Your task to perform on an android device: see creations saved in the google photos Image 0: 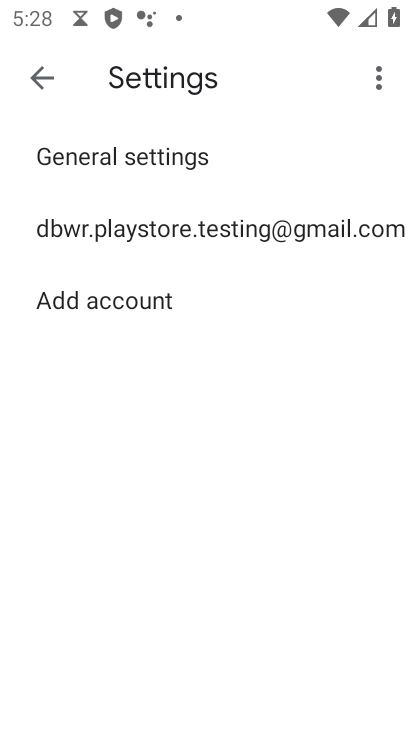
Step 0: click (40, 68)
Your task to perform on an android device: see creations saved in the google photos Image 1: 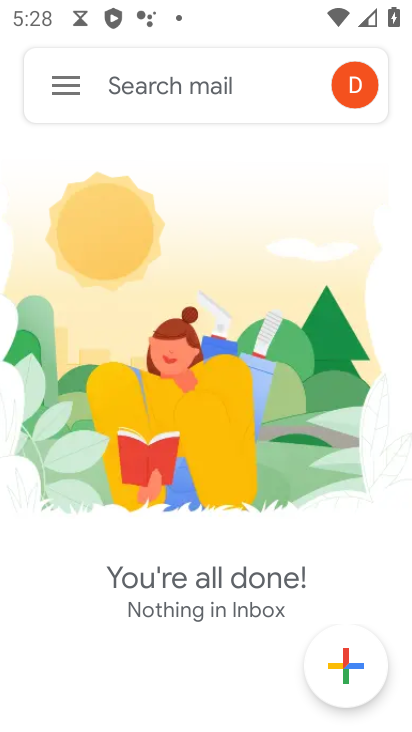
Step 1: press back button
Your task to perform on an android device: see creations saved in the google photos Image 2: 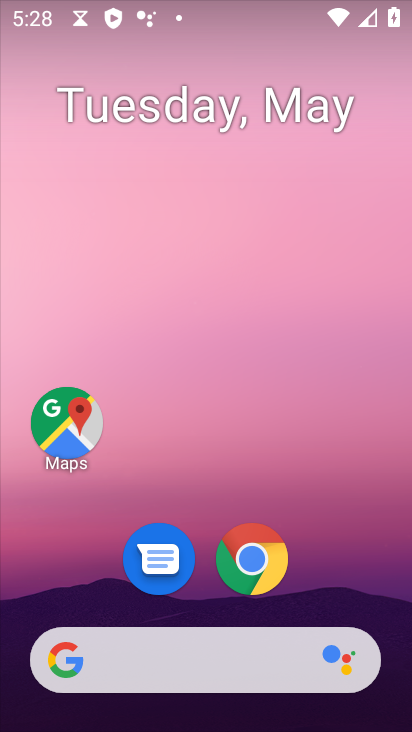
Step 2: drag from (367, 616) to (335, 17)
Your task to perform on an android device: see creations saved in the google photos Image 3: 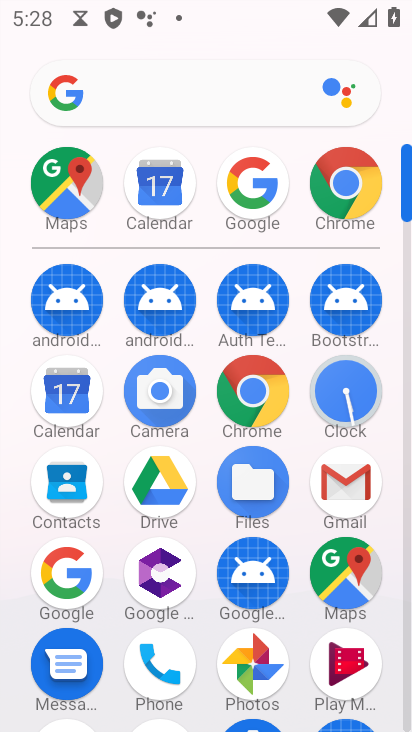
Step 3: click (252, 670)
Your task to perform on an android device: see creations saved in the google photos Image 4: 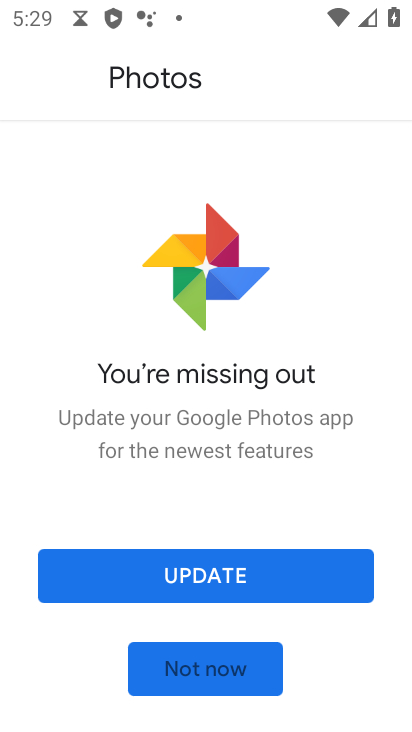
Step 4: click (205, 683)
Your task to perform on an android device: see creations saved in the google photos Image 5: 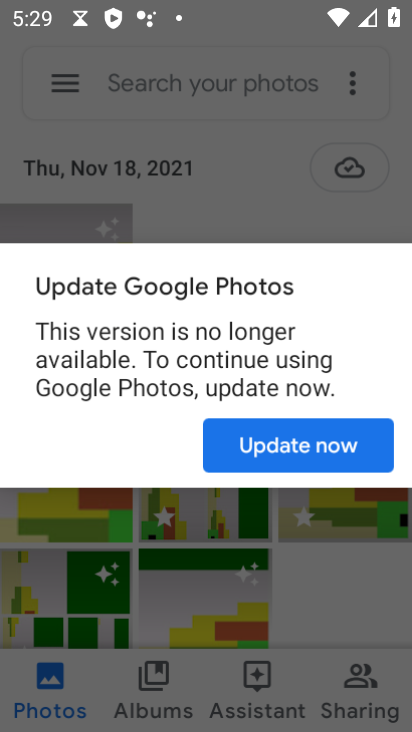
Step 5: click (205, 683)
Your task to perform on an android device: see creations saved in the google photos Image 6: 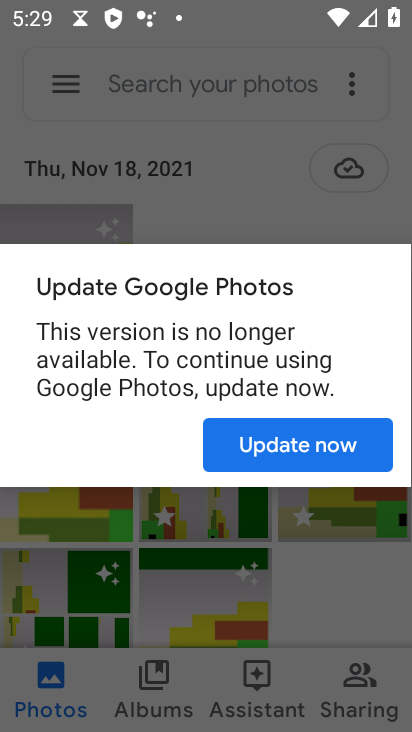
Step 6: click (308, 451)
Your task to perform on an android device: see creations saved in the google photos Image 7: 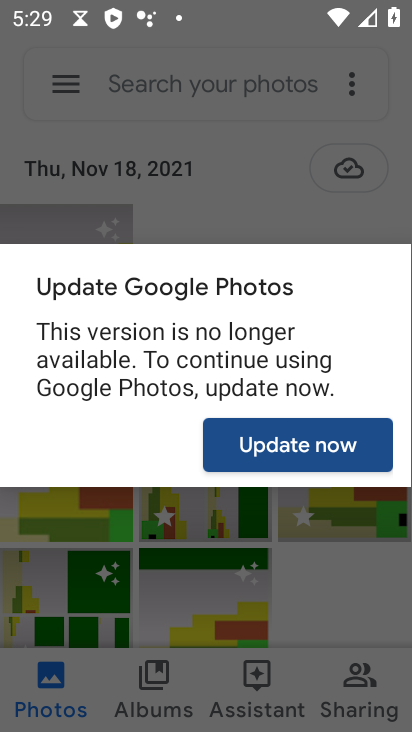
Step 7: click (308, 451)
Your task to perform on an android device: see creations saved in the google photos Image 8: 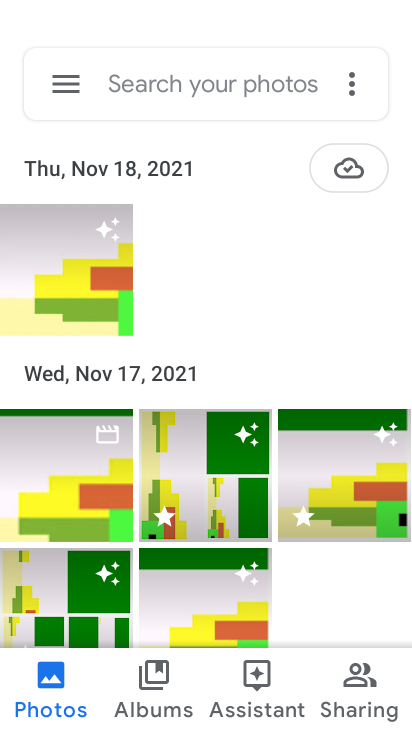
Step 8: click (308, 451)
Your task to perform on an android device: see creations saved in the google photos Image 9: 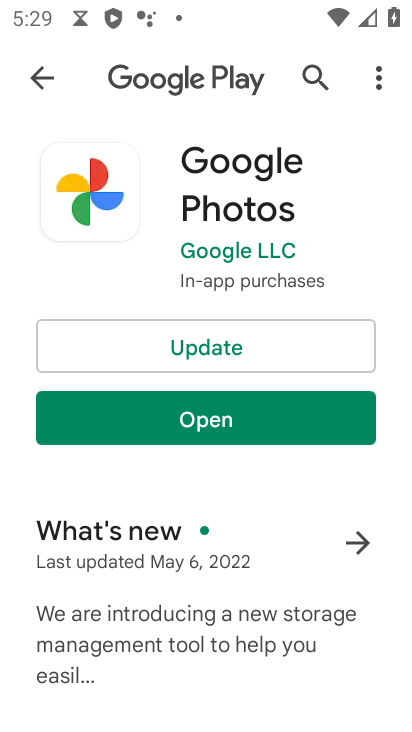
Step 9: press home button
Your task to perform on an android device: see creations saved in the google photos Image 10: 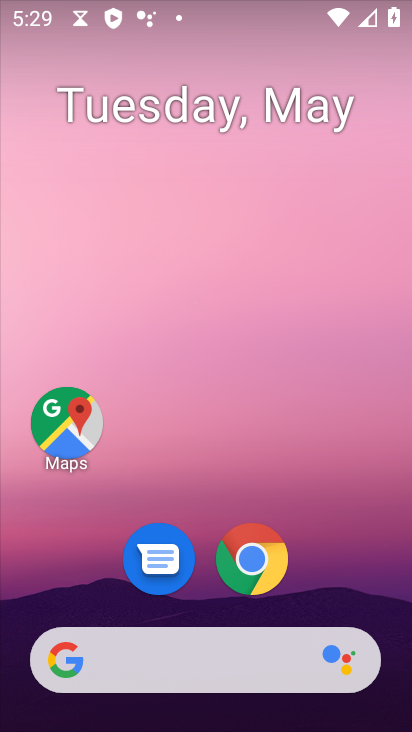
Step 10: drag from (282, 608) to (251, 18)
Your task to perform on an android device: see creations saved in the google photos Image 11: 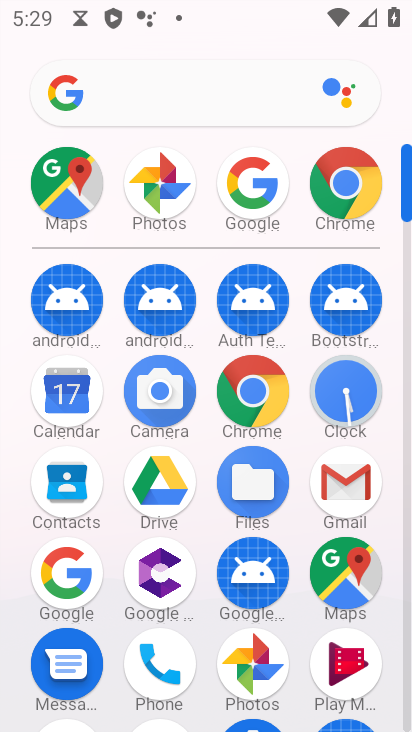
Step 11: click (250, 662)
Your task to perform on an android device: see creations saved in the google photos Image 12: 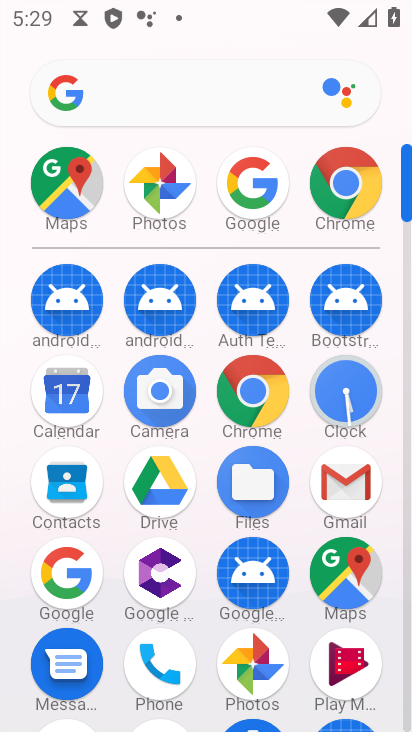
Step 12: click (256, 655)
Your task to perform on an android device: see creations saved in the google photos Image 13: 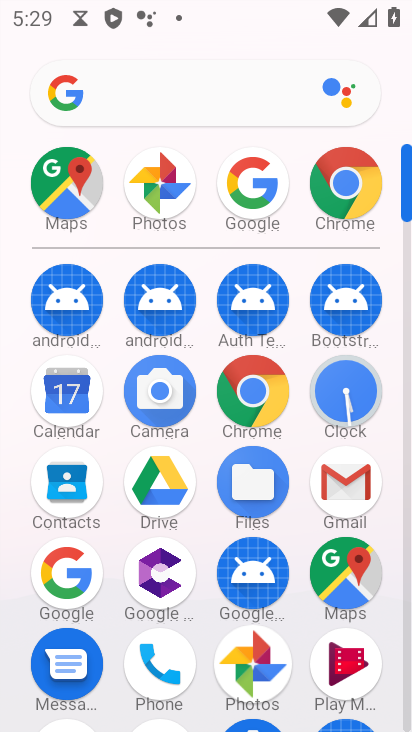
Step 13: click (256, 653)
Your task to perform on an android device: see creations saved in the google photos Image 14: 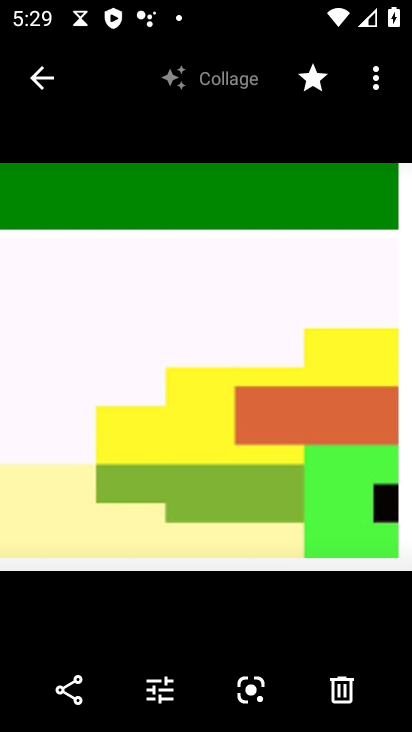
Step 14: click (38, 69)
Your task to perform on an android device: see creations saved in the google photos Image 15: 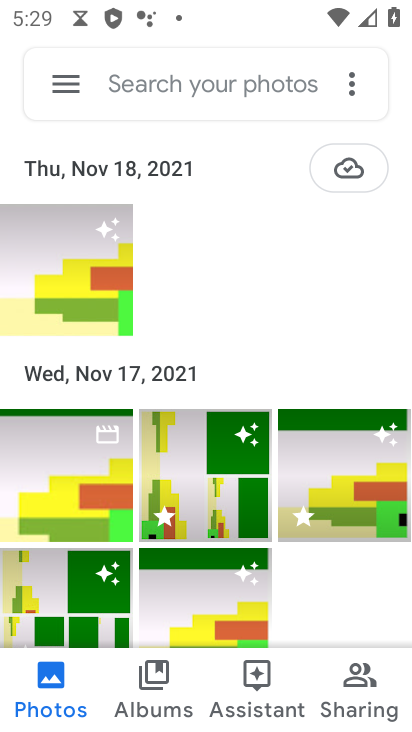
Step 15: task complete